Your task to perform on an android device: open app "Expedia: Hotels, Flights & Car" Image 0: 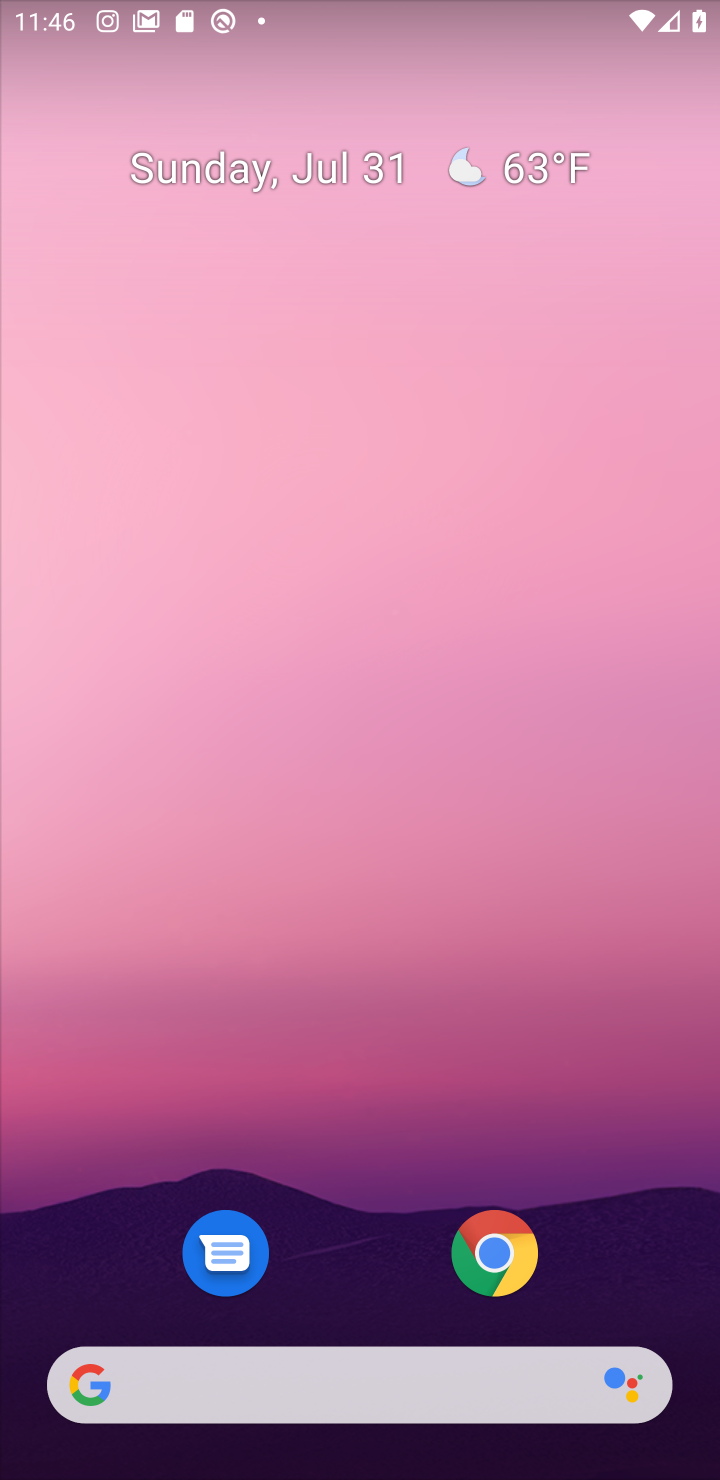
Step 0: drag from (382, 1251) to (394, 0)
Your task to perform on an android device: open app "Expedia: Hotels, Flights & Car" Image 1: 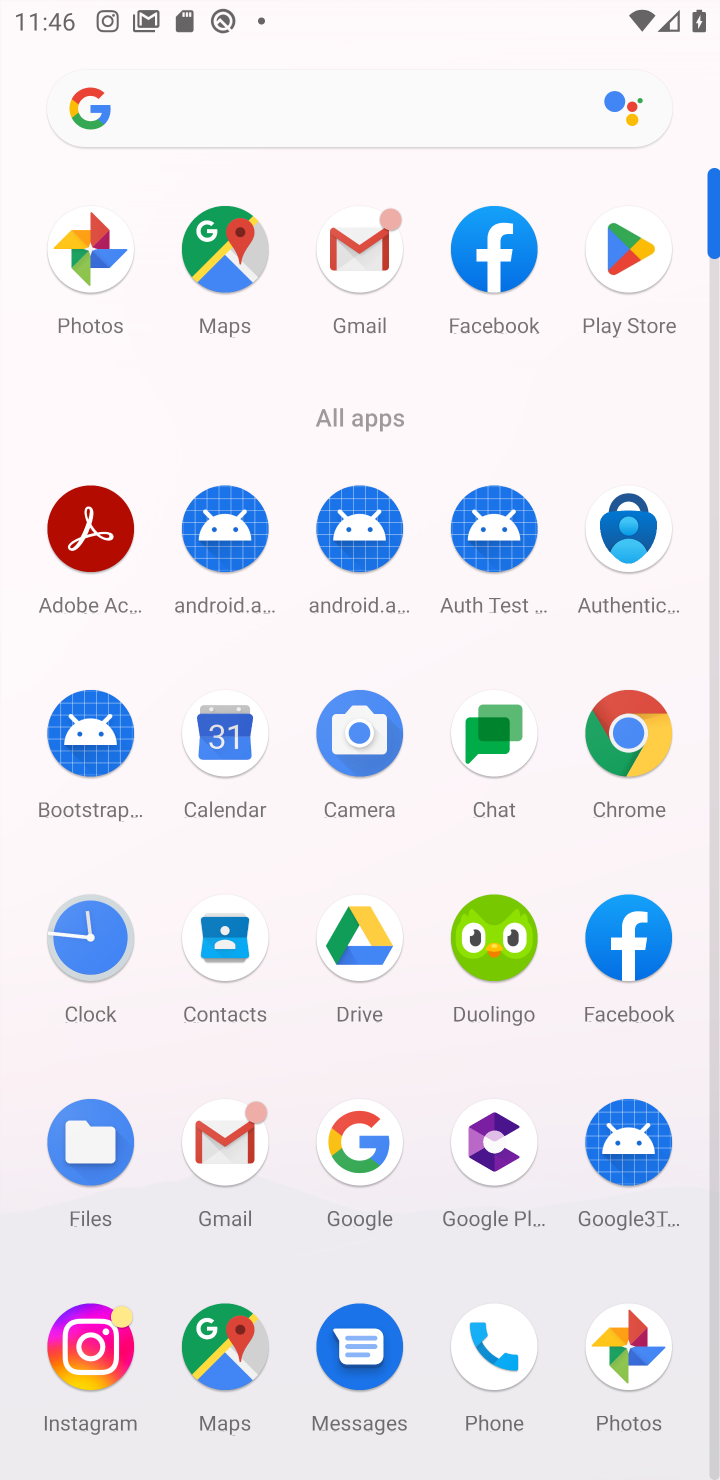
Step 1: click (643, 253)
Your task to perform on an android device: open app "Expedia: Hotels, Flights & Car" Image 2: 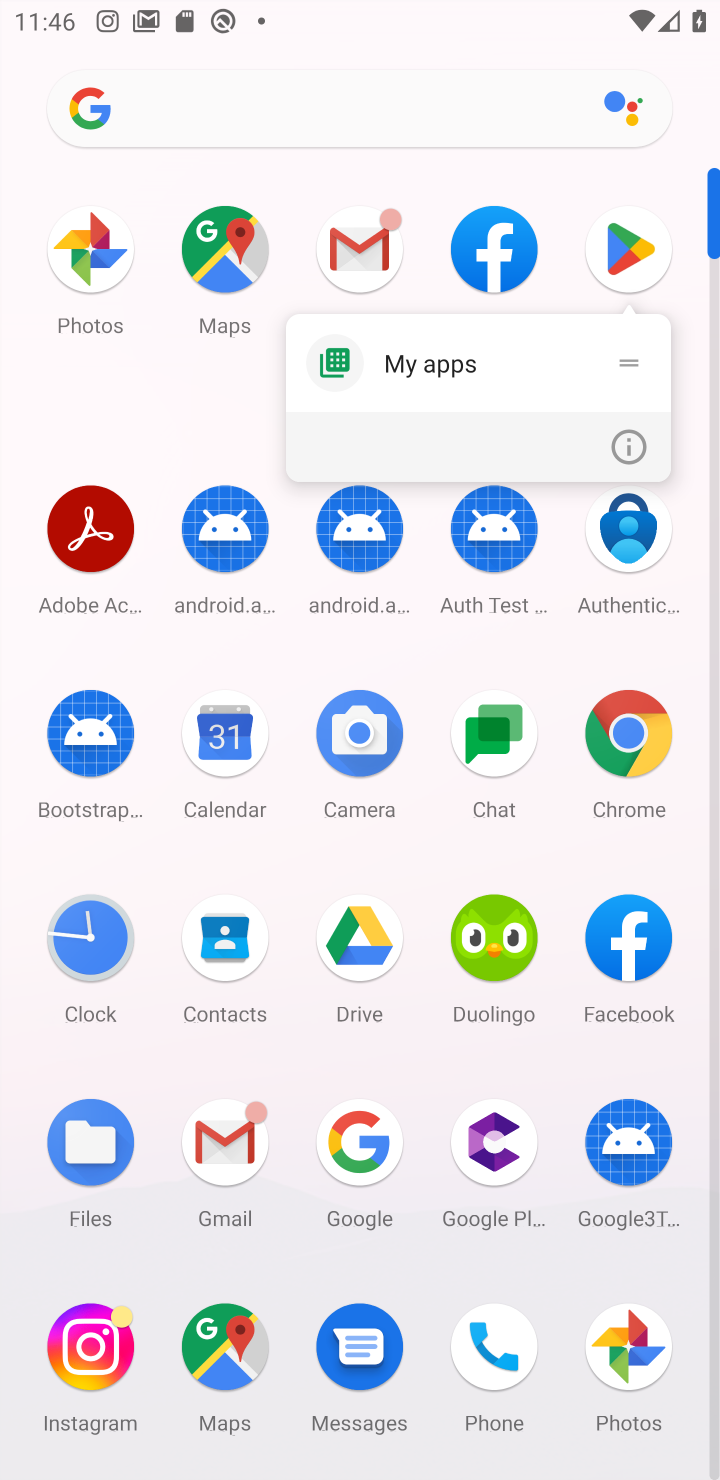
Step 2: click (622, 247)
Your task to perform on an android device: open app "Expedia: Hotels, Flights & Car" Image 3: 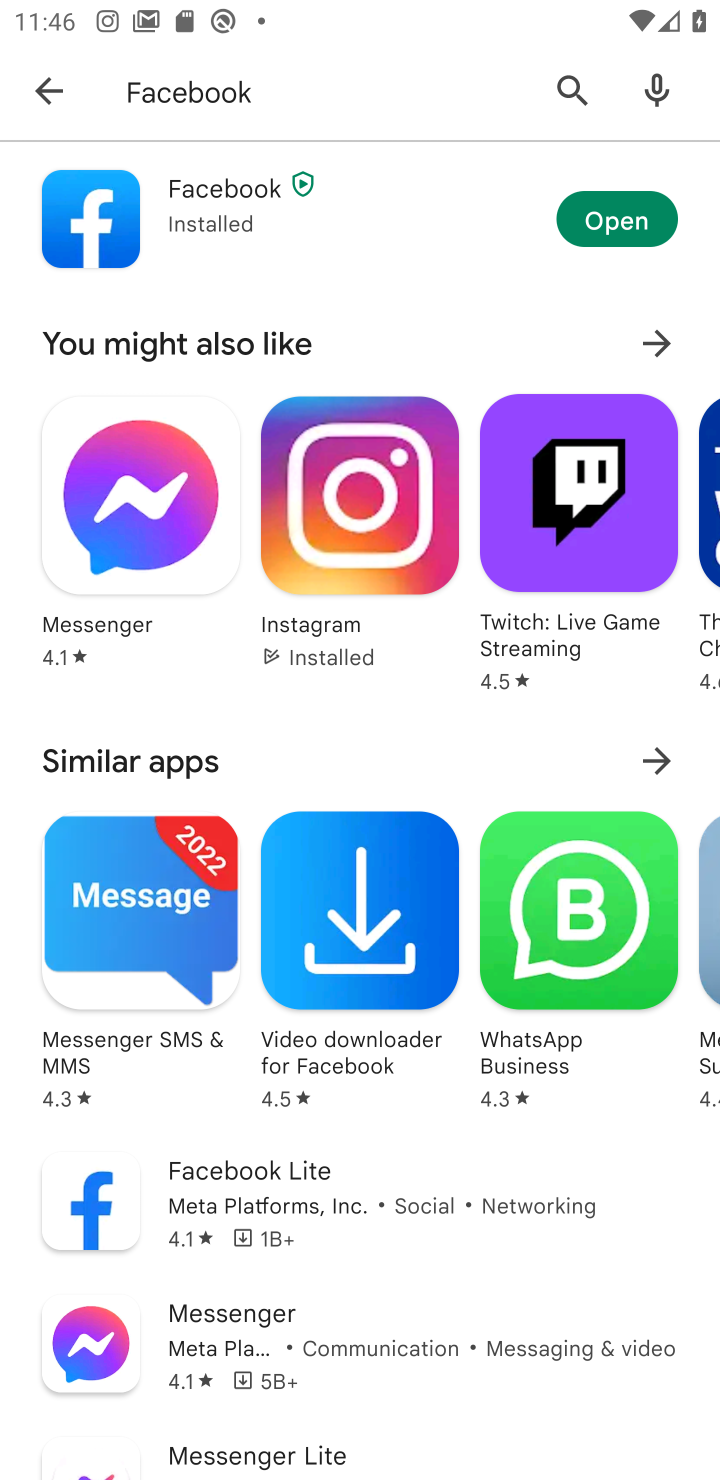
Step 3: click (238, 90)
Your task to perform on an android device: open app "Expedia: Hotels, Flights & Car" Image 4: 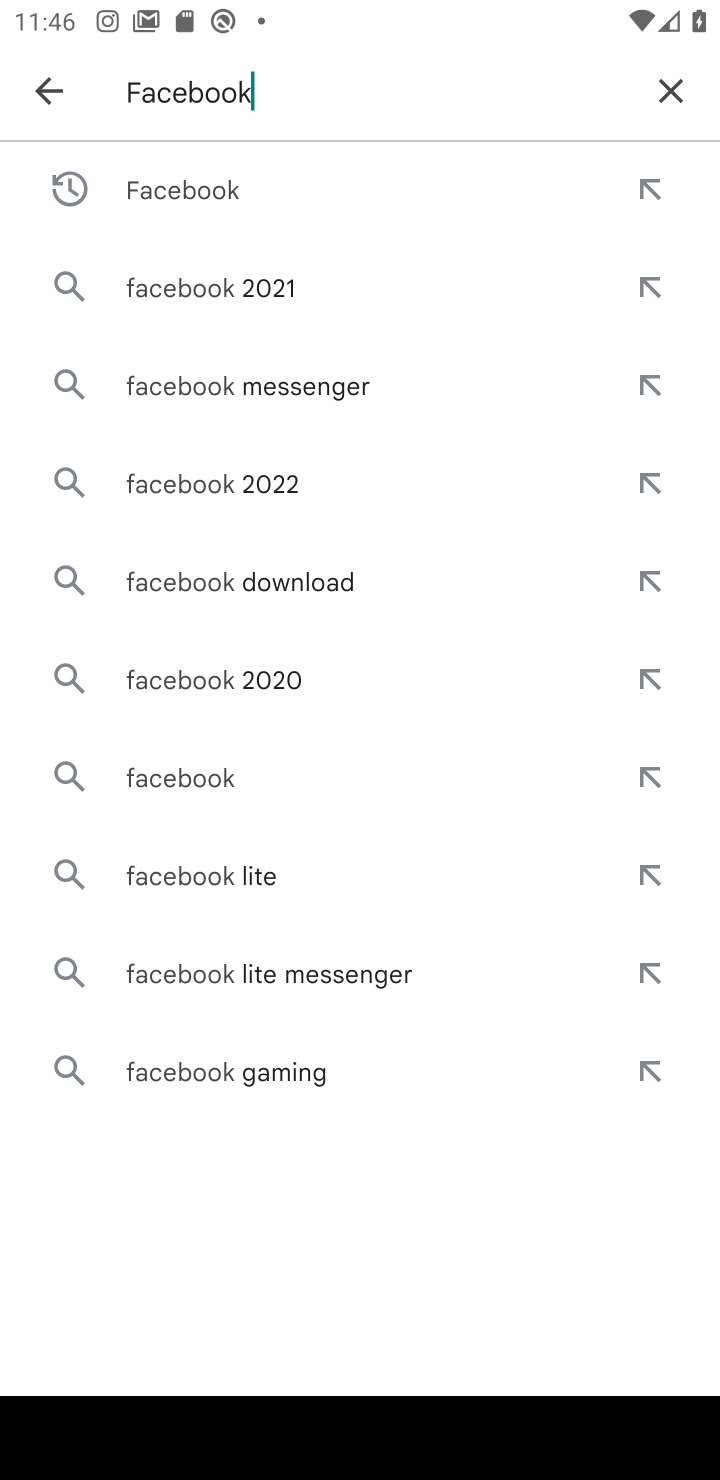
Step 4: click (672, 87)
Your task to perform on an android device: open app "Expedia: Hotels, Flights & Car" Image 5: 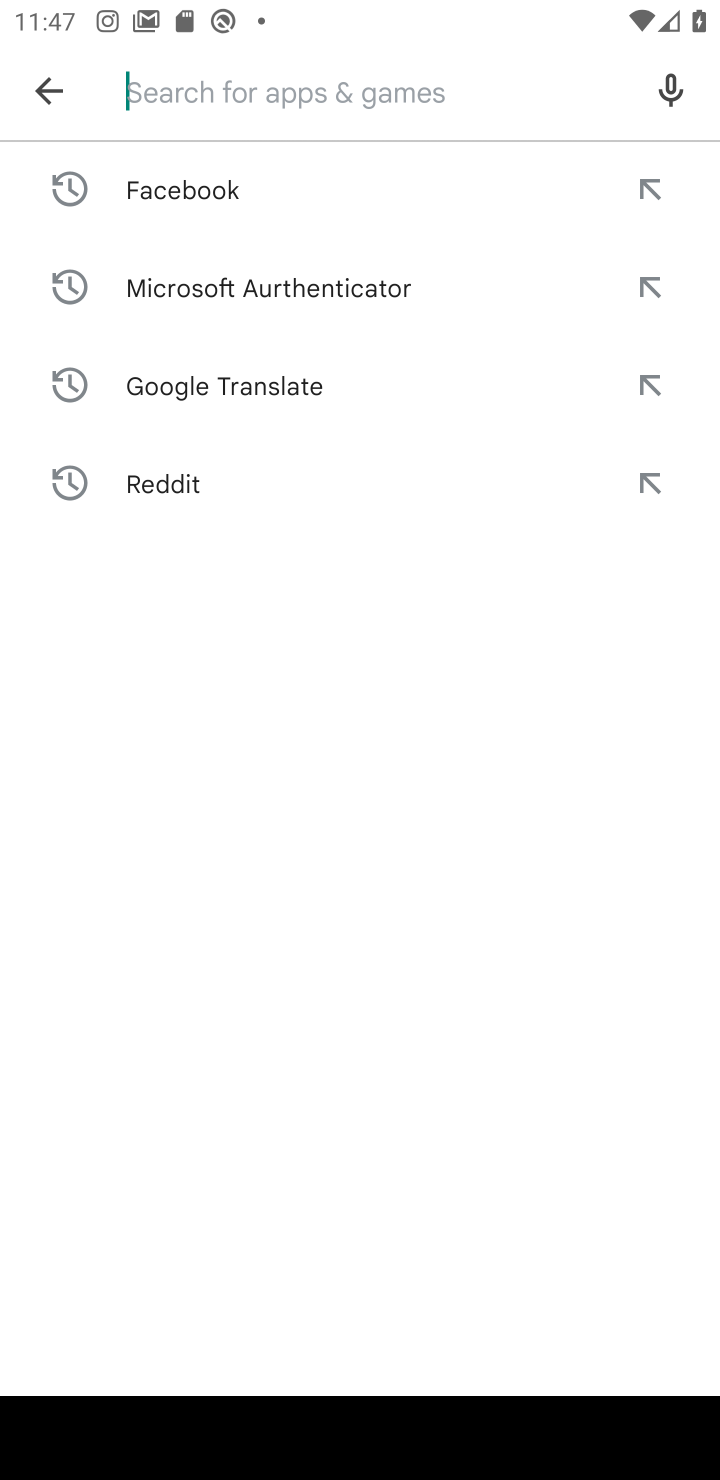
Step 5: type "Expedia: Hotels, Flights & Car"
Your task to perform on an android device: open app "Expedia: Hotels, Flights & Car" Image 6: 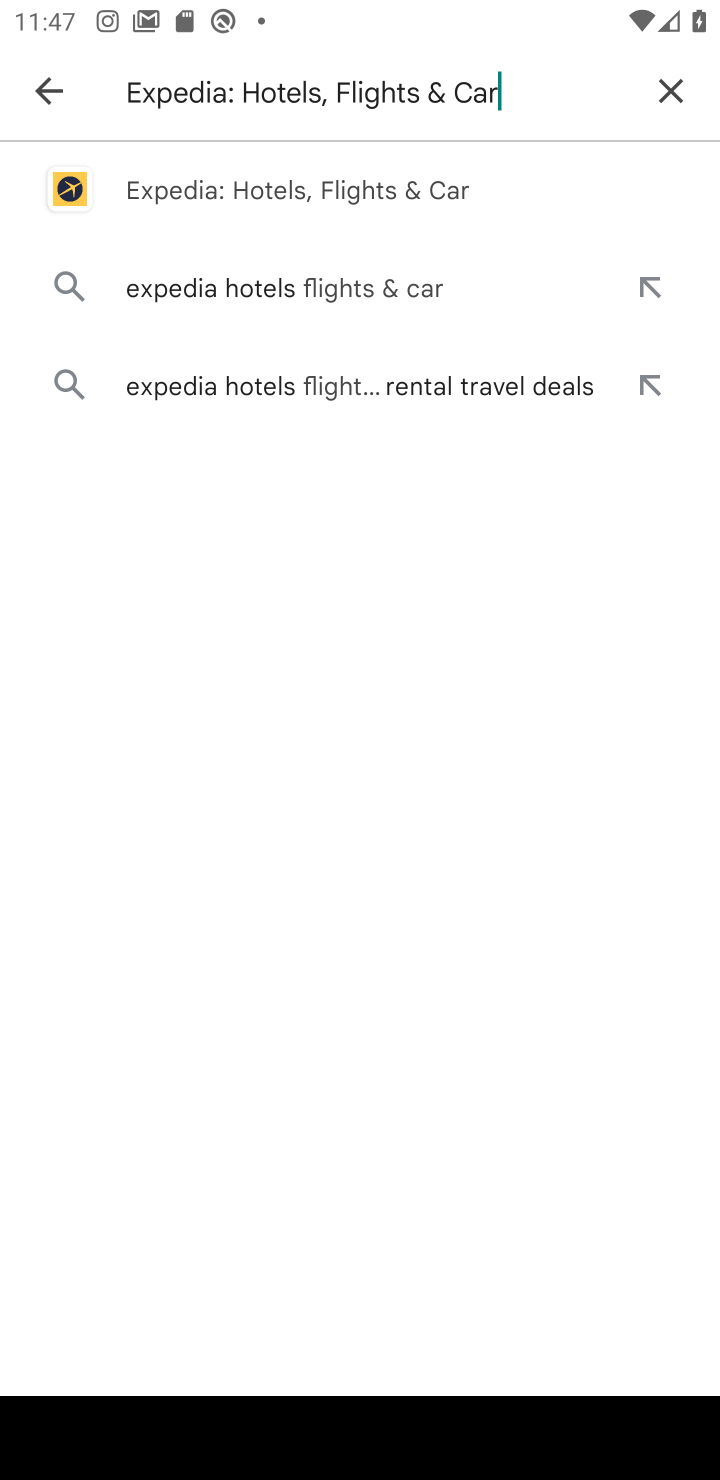
Step 6: press enter
Your task to perform on an android device: open app "Expedia: Hotels, Flights & Car" Image 7: 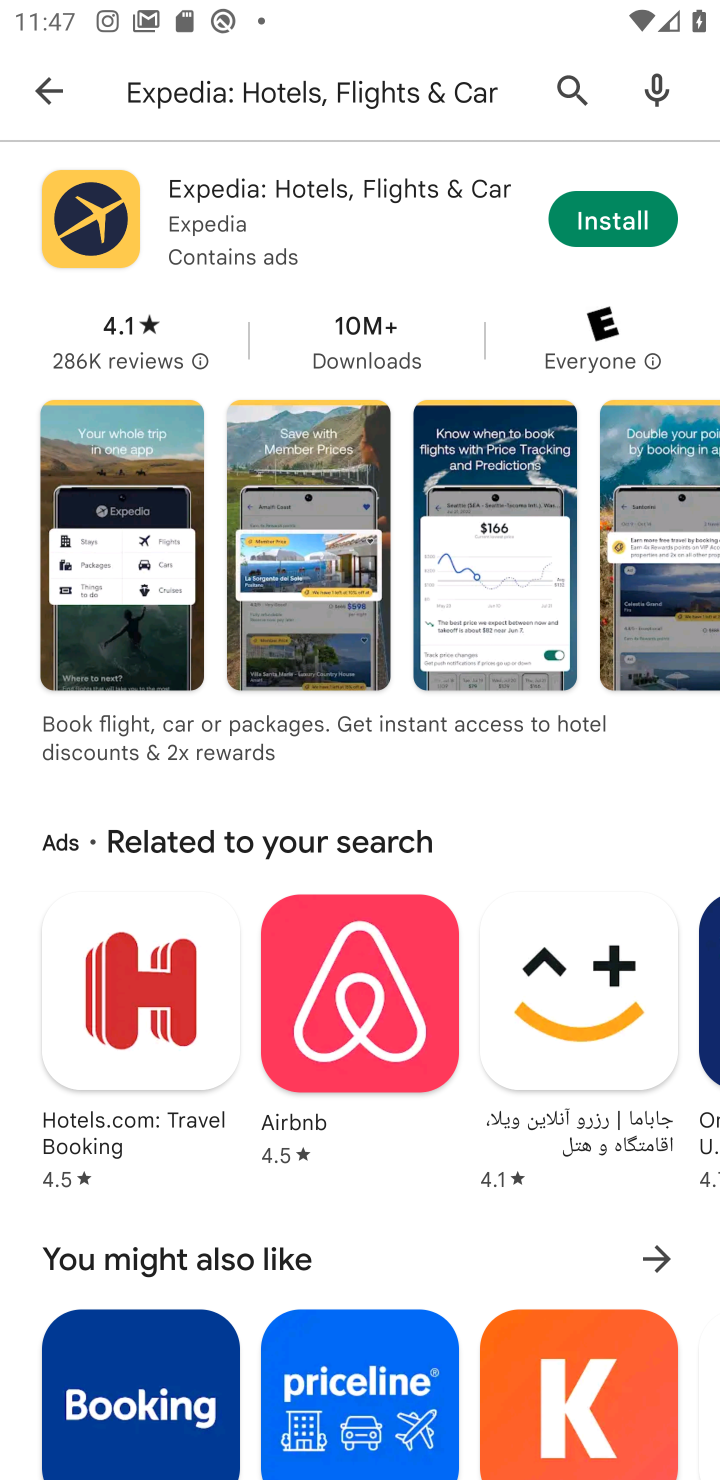
Step 7: task complete